Your task to perform on an android device: Go to accessibility settings Image 0: 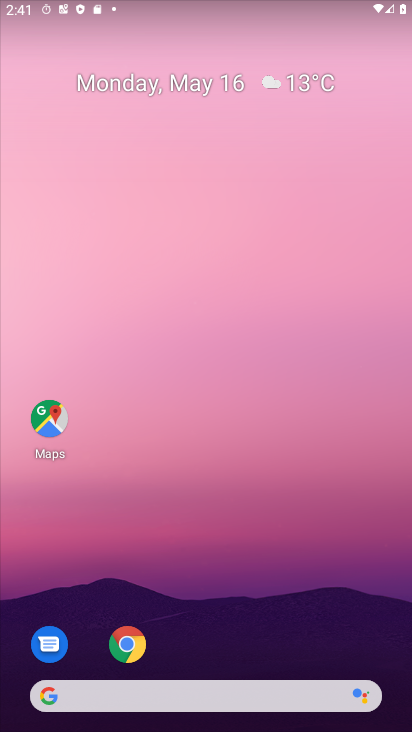
Step 0: drag from (244, 688) to (203, 222)
Your task to perform on an android device: Go to accessibility settings Image 1: 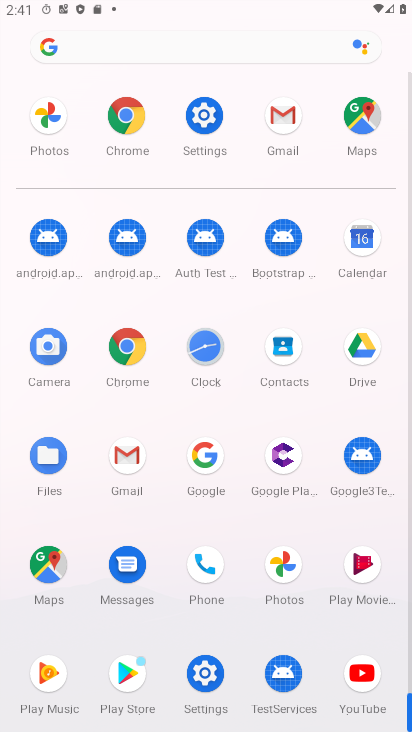
Step 1: click (224, 143)
Your task to perform on an android device: Go to accessibility settings Image 2: 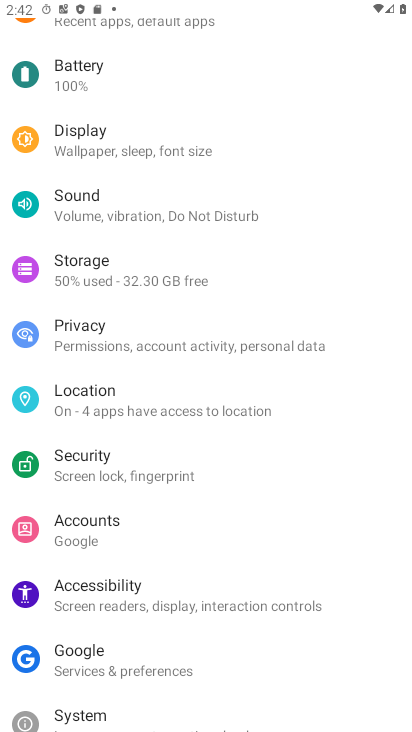
Step 2: drag from (183, 513) to (184, 312)
Your task to perform on an android device: Go to accessibility settings Image 3: 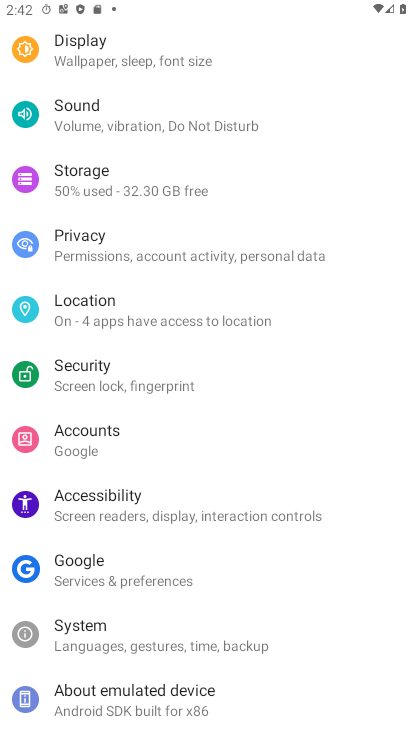
Step 3: click (164, 497)
Your task to perform on an android device: Go to accessibility settings Image 4: 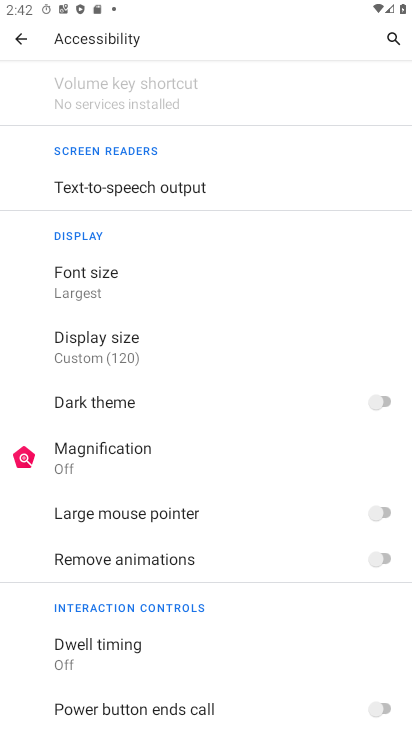
Step 4: task complete